Your task to perform on an android device: change the clock display to digital Image 0: 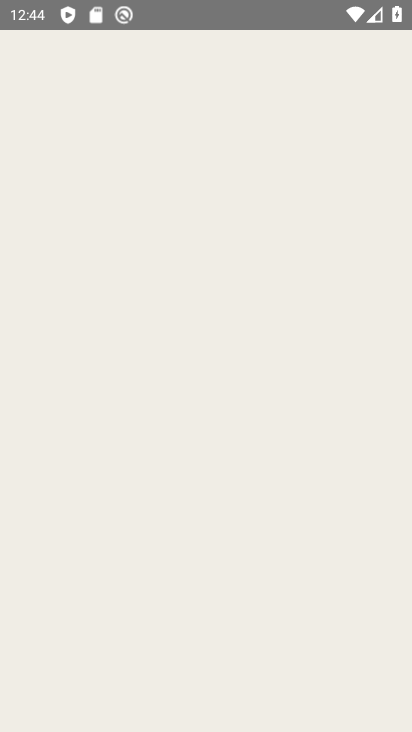
Step 0: click (303, 7)
Your task to perform on an android device: change the clock display to digital Image 1: 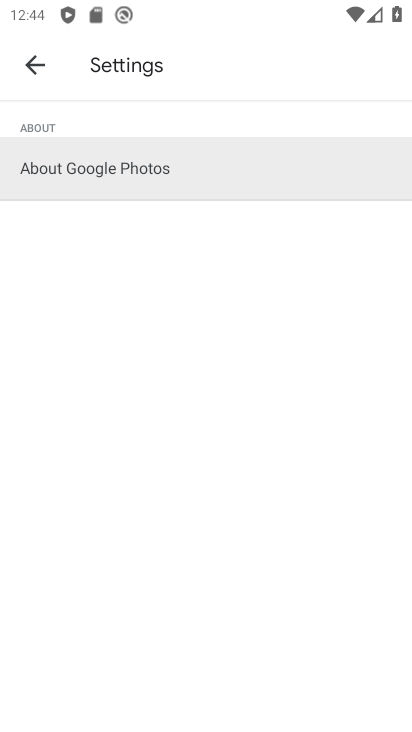
Step 1: press home button
Your task to perform on an android device: change the clock display to digital Image 2: 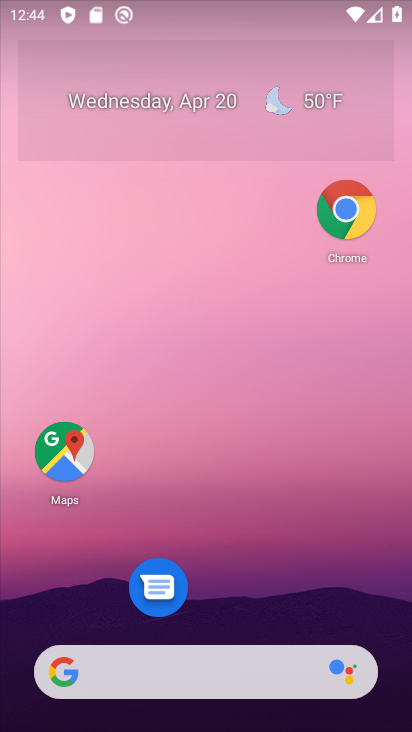
Step 2: drag from (249, 562) to (191, 8)
Your task to perform on an android device: change the clock display to digital Image 3: 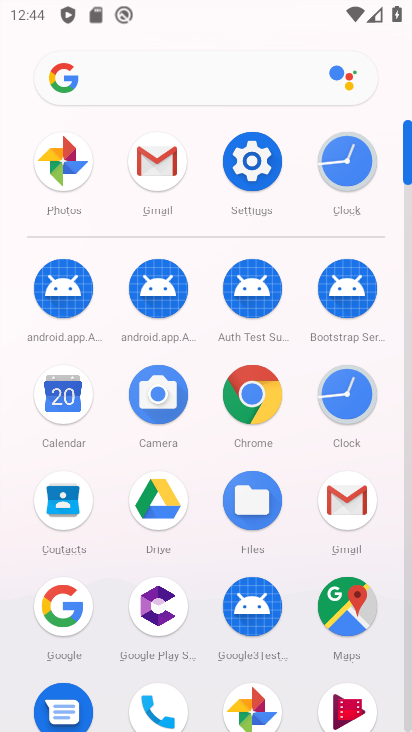
Step 3: click (363, 407)
Your task to perform on an android device: change the clock display to digital Image 4: 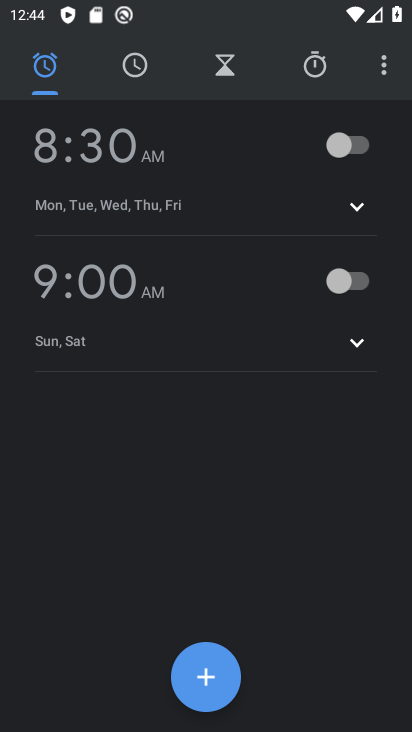
Step 4: click (382, 80)
Your task to perform on an android device: change the clock display to digital Image 5: 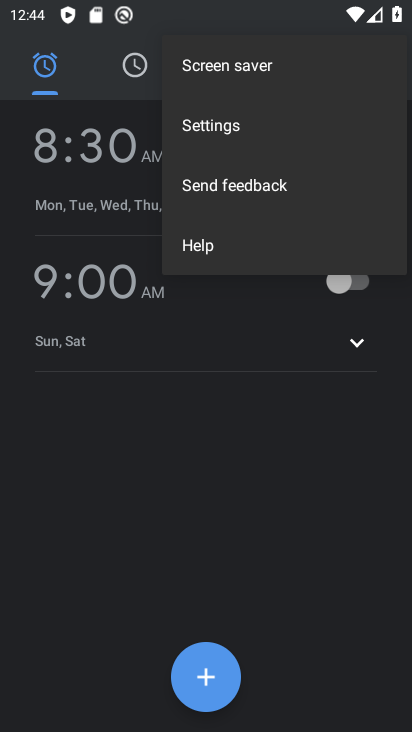
Step 5: click (201, 118)
Your task to perform on an android device: change the clock display to digital Image 6: 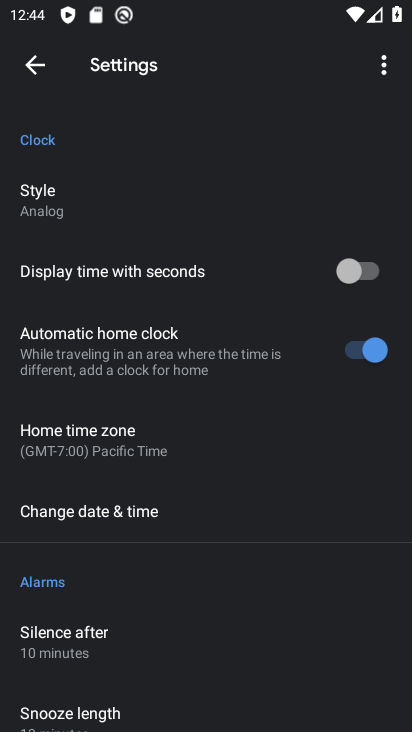
Step 6: click (72, 194)
Your task to perform on an android device: change the clock display to digital Image 7: 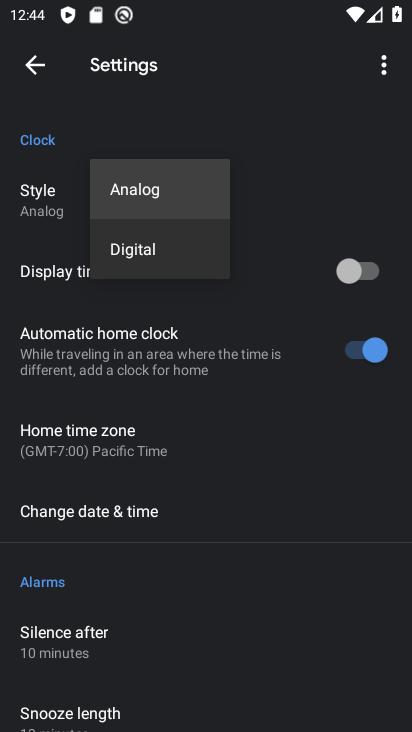
Step 7: click (127, 248)
Your task to perform on an android device: change the clock display to digital Image 8: 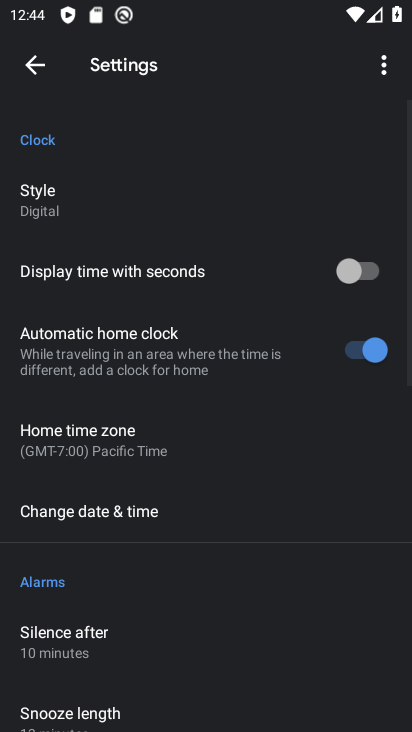
Step 8: task complete